Your task to perform on an android device: What is the recent news? Image 0: 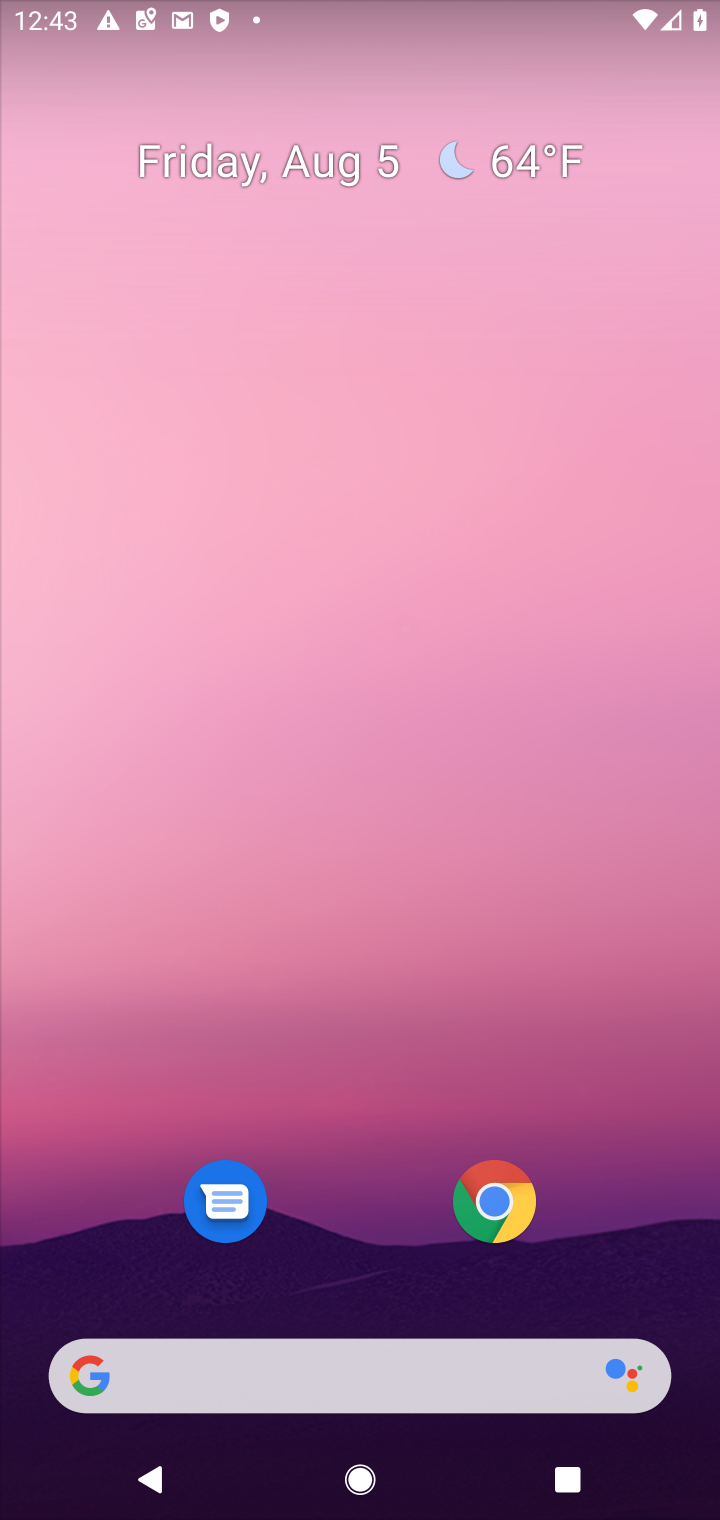
Step 0: press home button
Your task to perform on an android device: What is the recent news? Image 1: 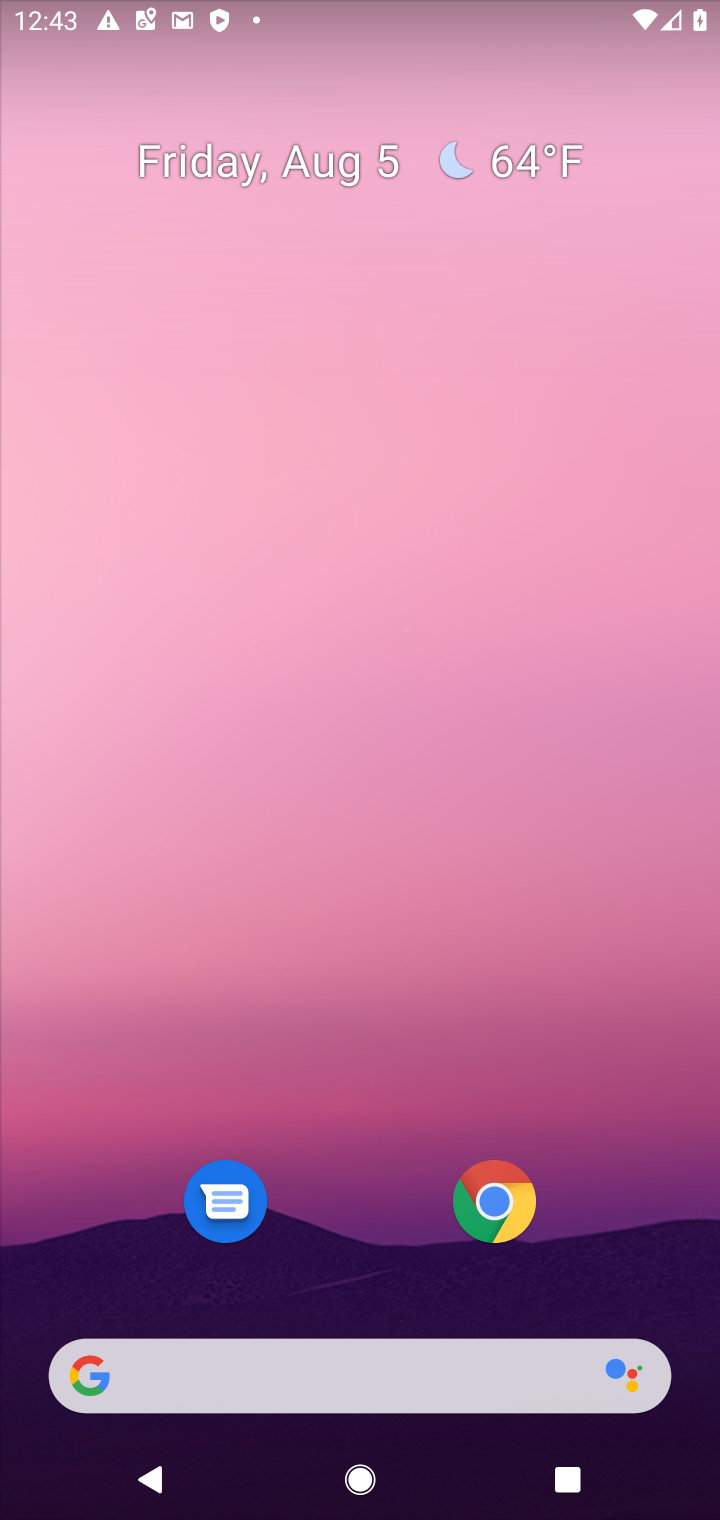
Step 1: task complete